Your task to perform on an android device: Go to ESPN.com Image 0: 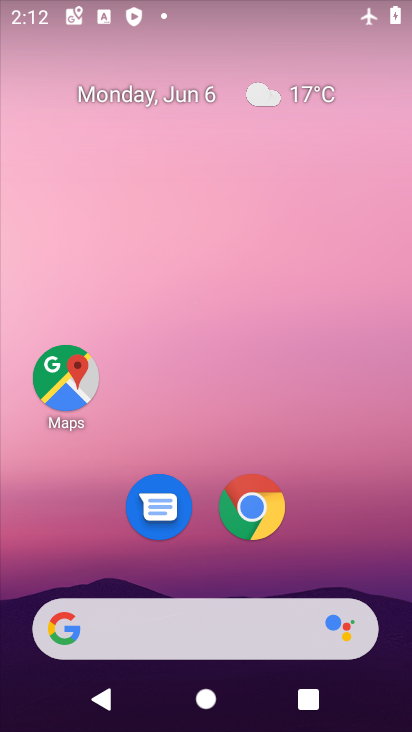
Step 0: click (284, 638)
Your task to perform on an android device: Go to ESPN.com Image 1: 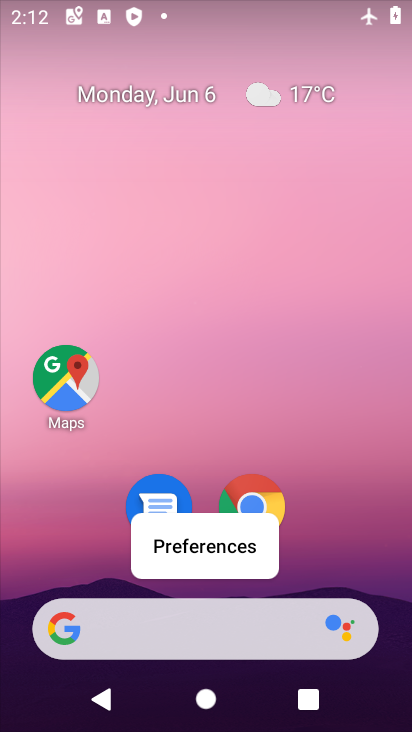
Step 1: click (215, 636)
Your task to perform on an android device: Go to ESPN.com Image 2: 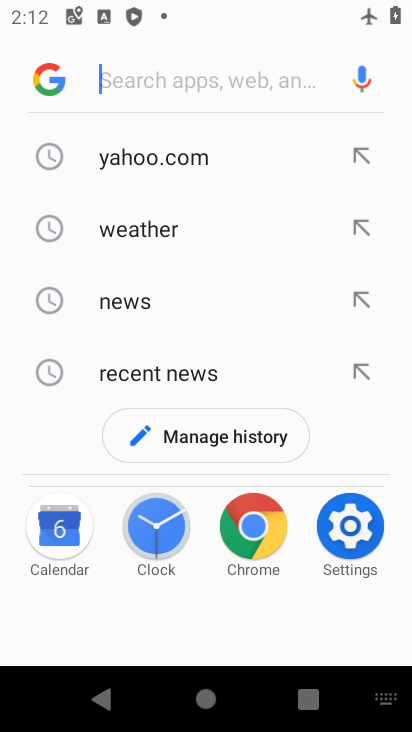
Step 2: type "espn.com"
Your task to perform on an android device: Go to ESPN.com Image 3: 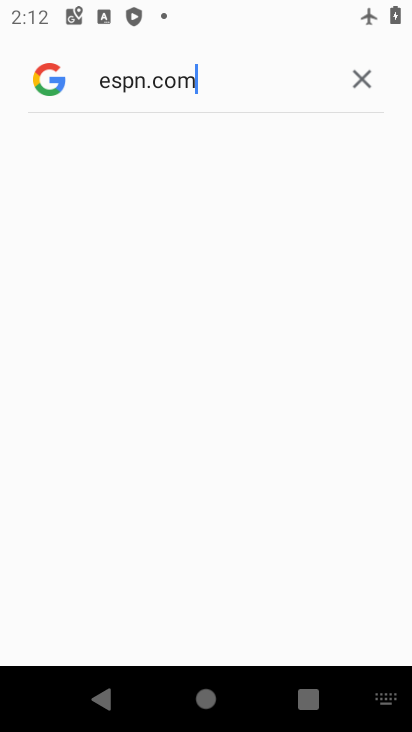
Step 3: task complete